Your task to perform on an android device: change notification settings in the gmail app Image 0: 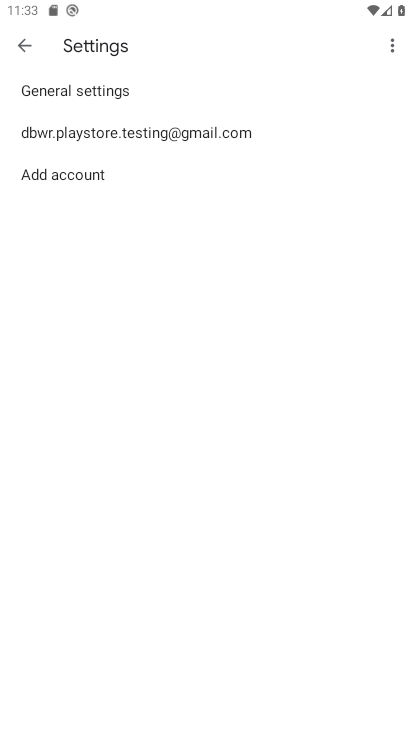
Step 0: click (172, 135)
Your task to perform on an android device: change notification settings in the gmail app Image 1: 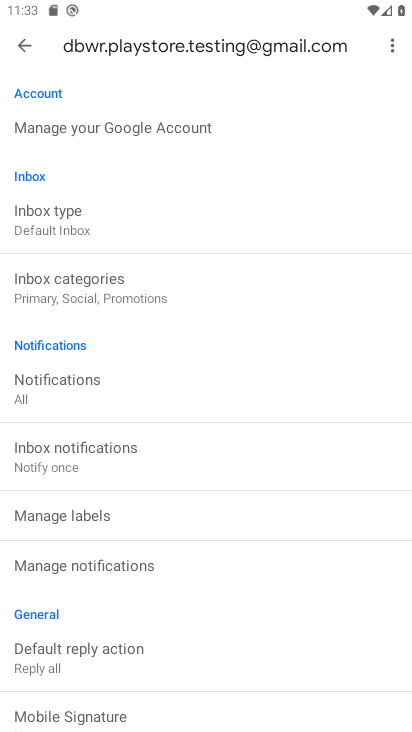
Step 1: click (111, 568)
Your task to perform on an android device: change notification settings in the gmail app Image 2: 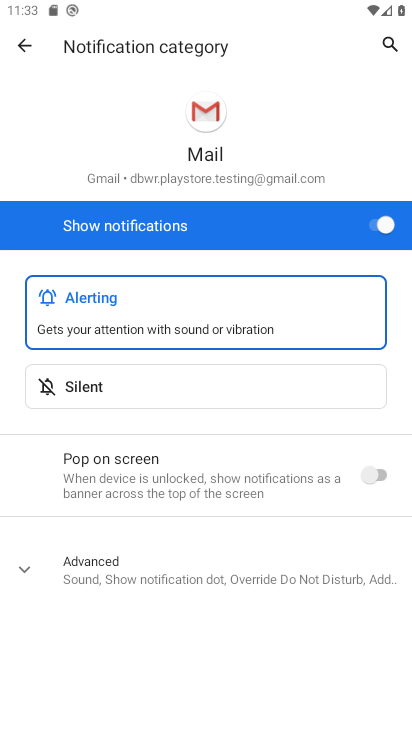
Step 2: click (385, 229)
Your task to perform on an android device: change notification settings in the gmail app Image 3: 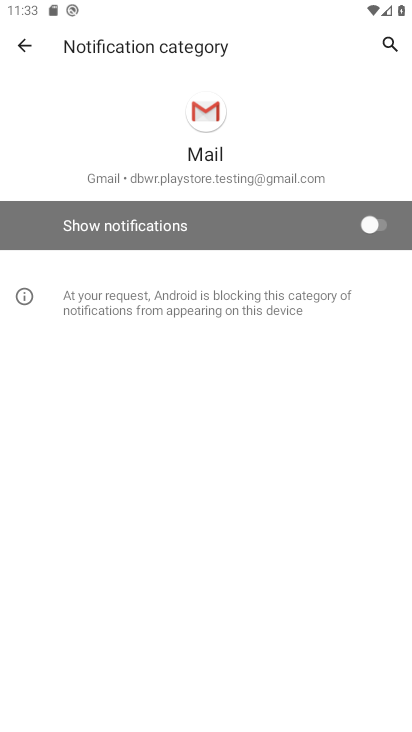
Step 3: task complete